Your task to perform on an android device: change the clock display to show seconds Image 0: 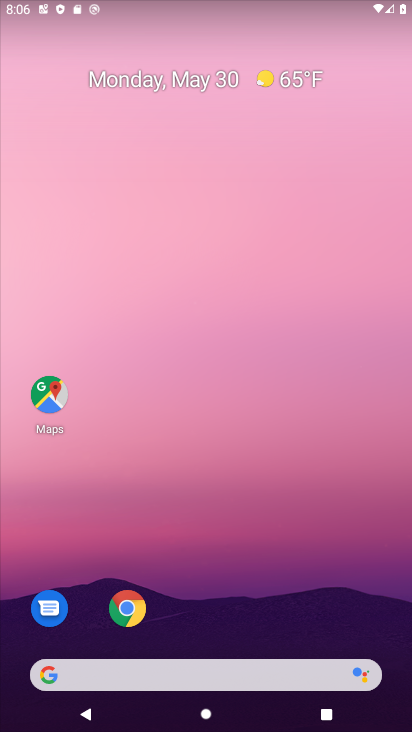
Step 0: drag from (181, 638) to (220, 223)
Your task to perform on an android device: change the clock display to show seconds Image 1: 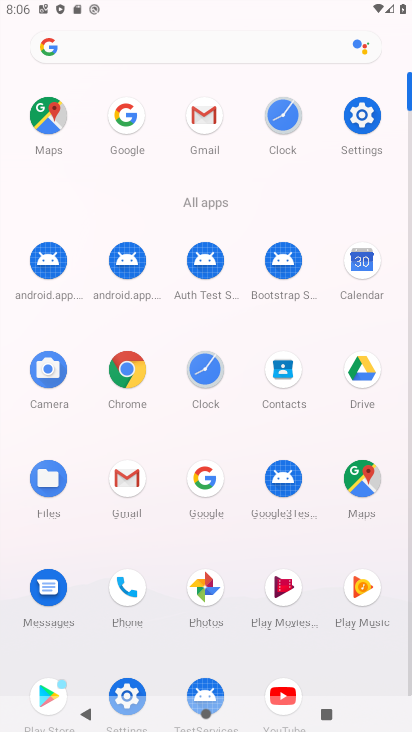
Step 1: click (288, 110)
Your task to perform on an android device: change the clock display to show seconds Image 2: 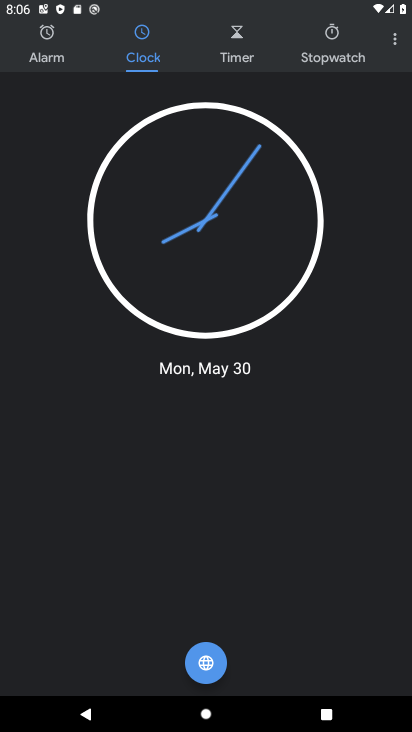
Step 2: click (398, 45)
Your task to perform on an android device: change the clock display to show seconds Image 3: 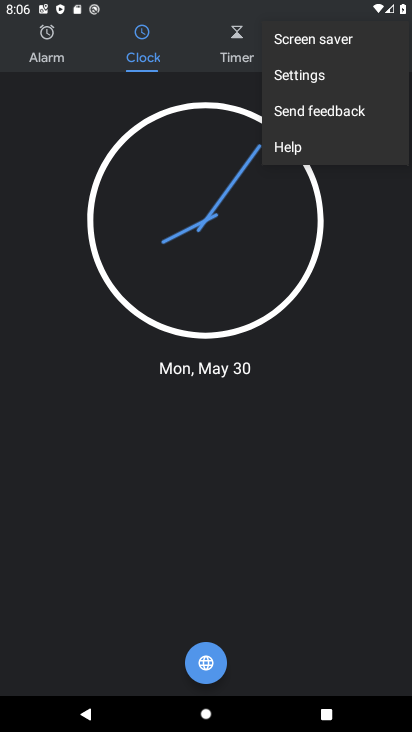
Step 3: click (300, 82)
Your task to perform on an android device: change the clock display to show seconds Image 4: 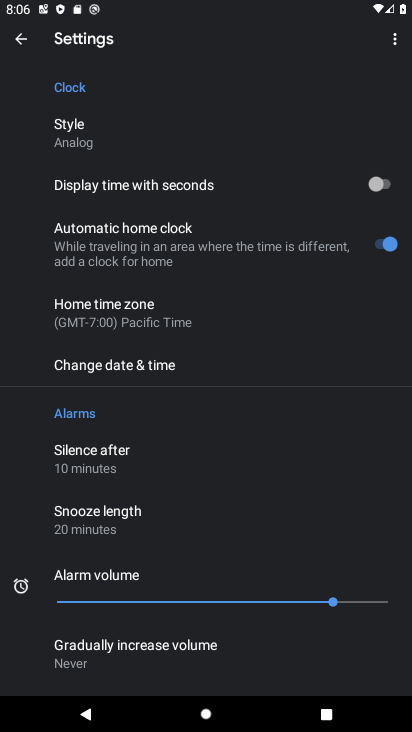
Step 4: click (380, 173)
Your task to perform on an android device: change the clock display to show seconds Image 5: 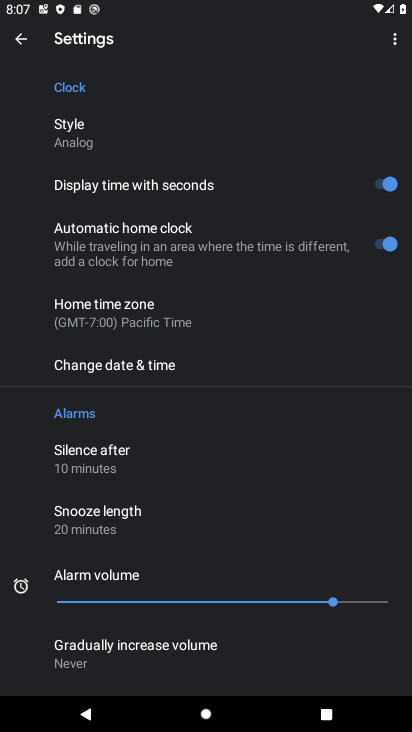
Step 5: task complete